Your task to perform on an android device: Go to network settings Image 0: 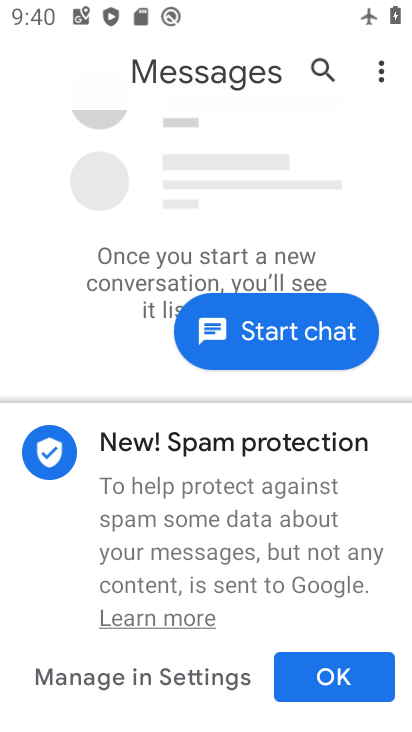
Step 0: press home button
Your task to perform on an android device: Go to network settings Image 1: 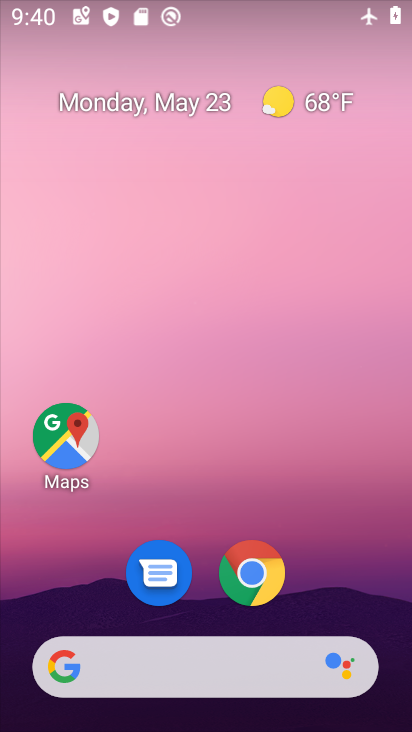
Step 1: drag from (348, 567) to (411, 2)
Your task to perform on an android device: Go to network settings Image 2: 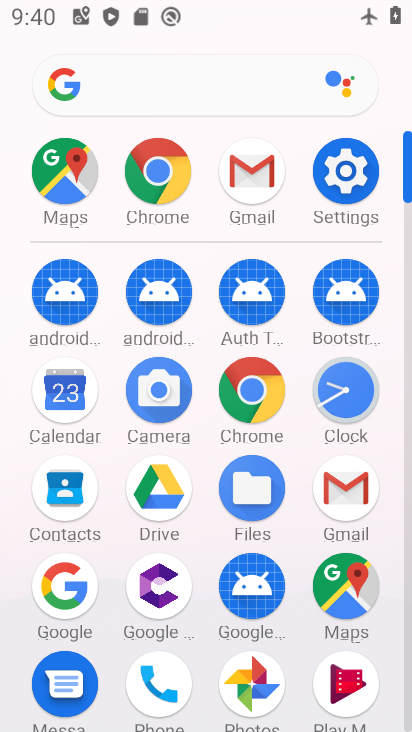
Step 2: click (340, 184)
Your task to perform on an android device: Go to network settings Image 3: 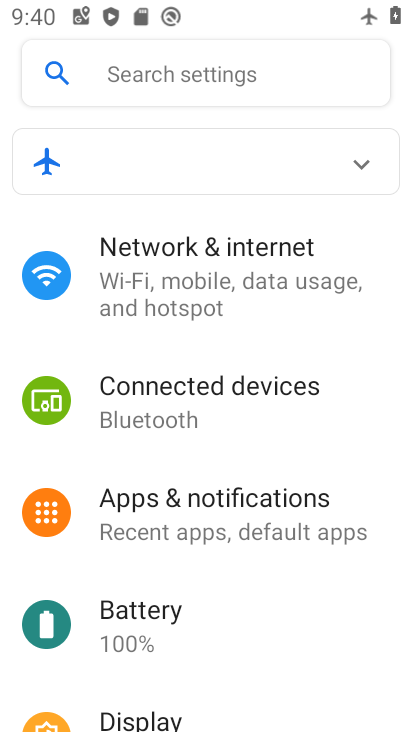
Step 3: click (296, 269)
Your task to perform on an android device: Go to network settings Image 4: 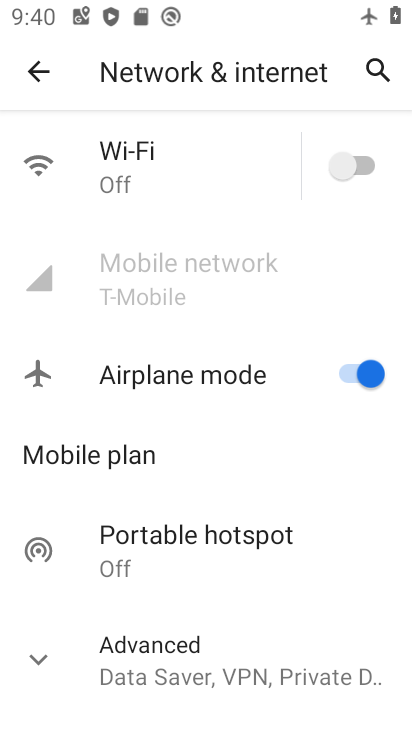
Step 4: click (242, 287)
Your task to perform on an android device: Go to network settings Image 5: 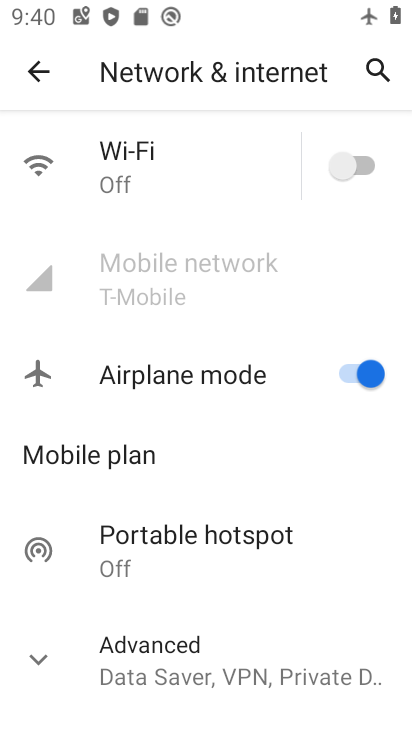
Step 5: task complete